Your task to perform on an android device: Open the web browser Image 0: 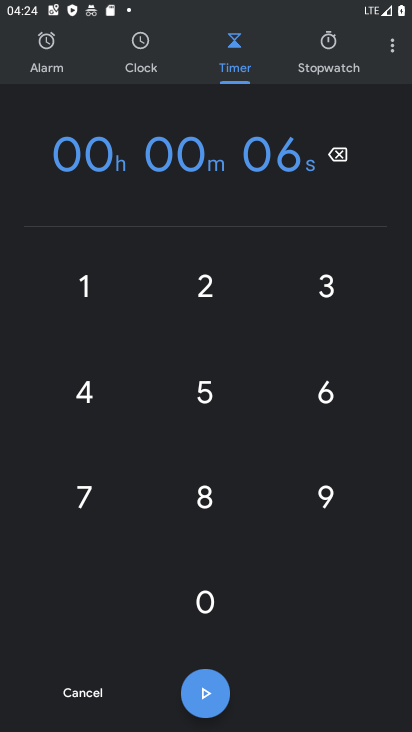
Step 0: press home button
Your task to perform on an android device: Open the web browser Image 1: 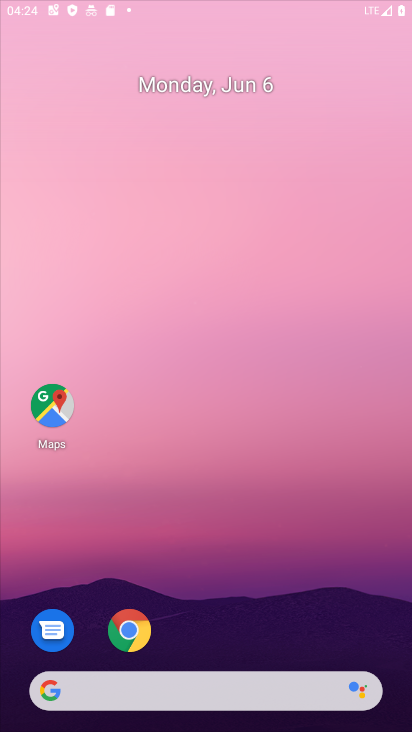
Step 1: drag from (178, 635) to (141, 271)
Your task to perform on an android device: Open the web browser Image 2: 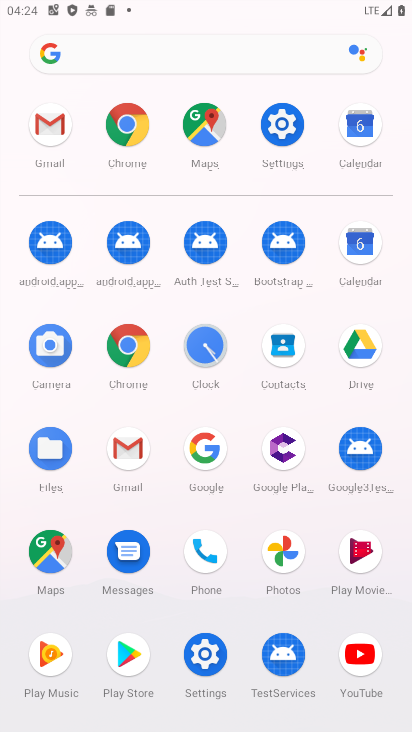
Step 2: click (123, 366)
Your task to perform on an android device: Open the web browser Image 3: 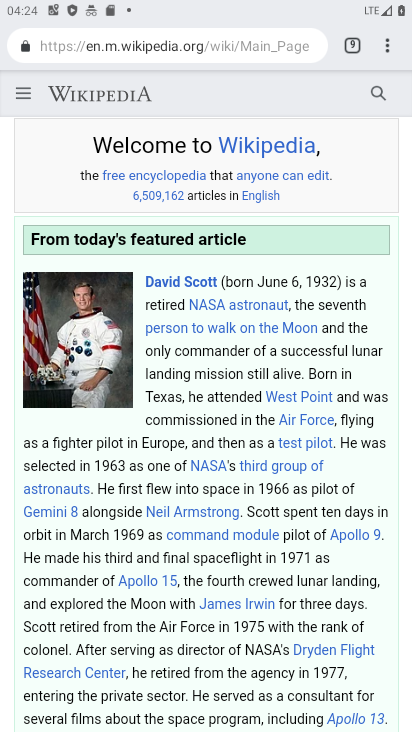
Step 3: click (225, 44)
Your task to perform on an android device: Open the web browser Image 4: 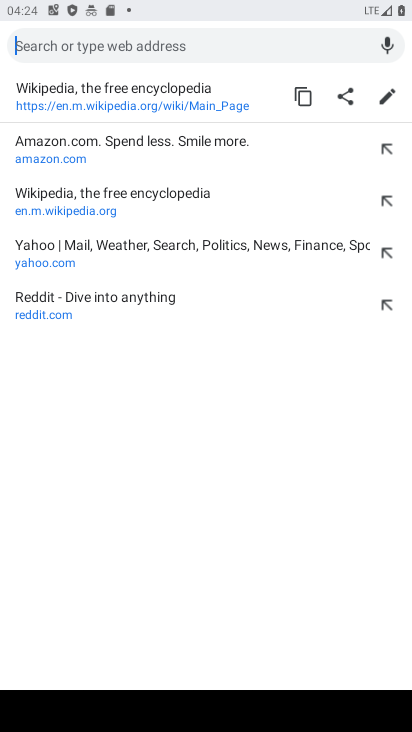
Step 4: type "web browse"
Your task to perform on an android device: Open the web browser Image 5: 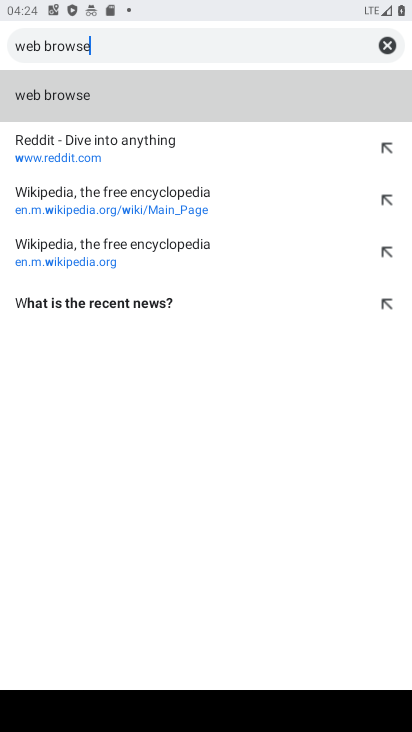
Step 5: type ""
Your task to perform on an android device: Open the web browser Image 6: 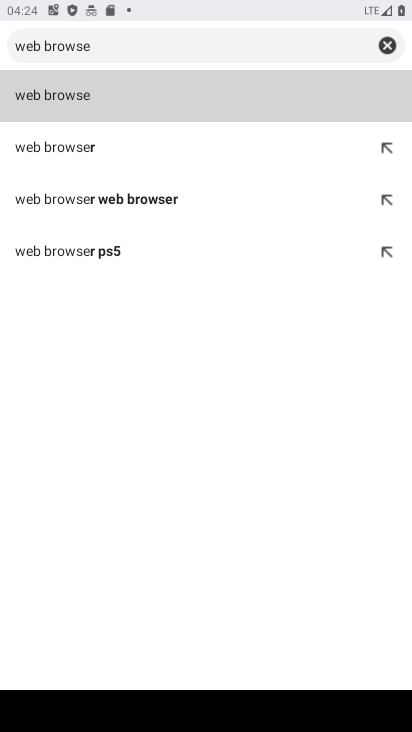
Step 6: click (150, 85)
Your task to perform on an android device: Open the web browser Image 7: 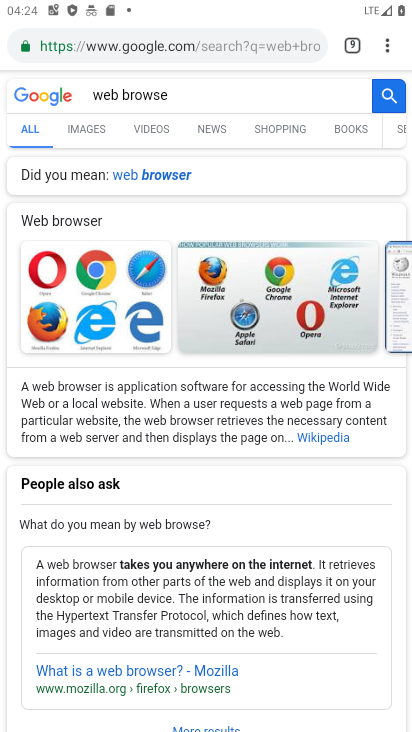
Step 7: task complete